Your task to perform on an android device: open app "Life360: Find Family & Friends" (install if not already installed) and enter user name: "gusts@gmail.com" and password: "assurers" Image 0: 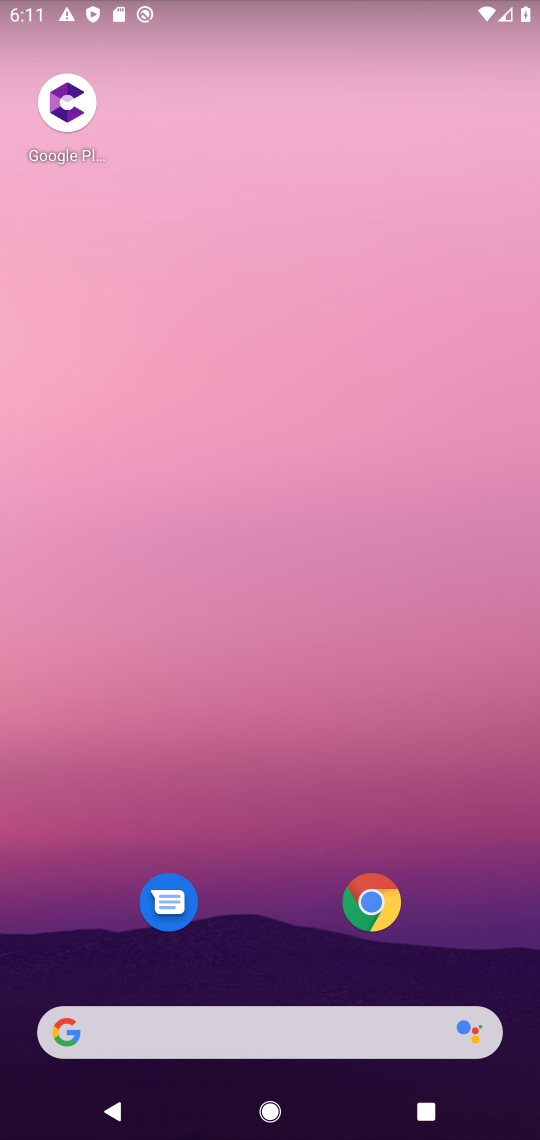
Step 0: drag from (288, 791) to (366, 2)
Your task to perform on an android device: open app "Life360: Find Family & Friends" (install if not already installed) and enter user name: "gusts@gmail.com" and password: "assurers" Image 1: 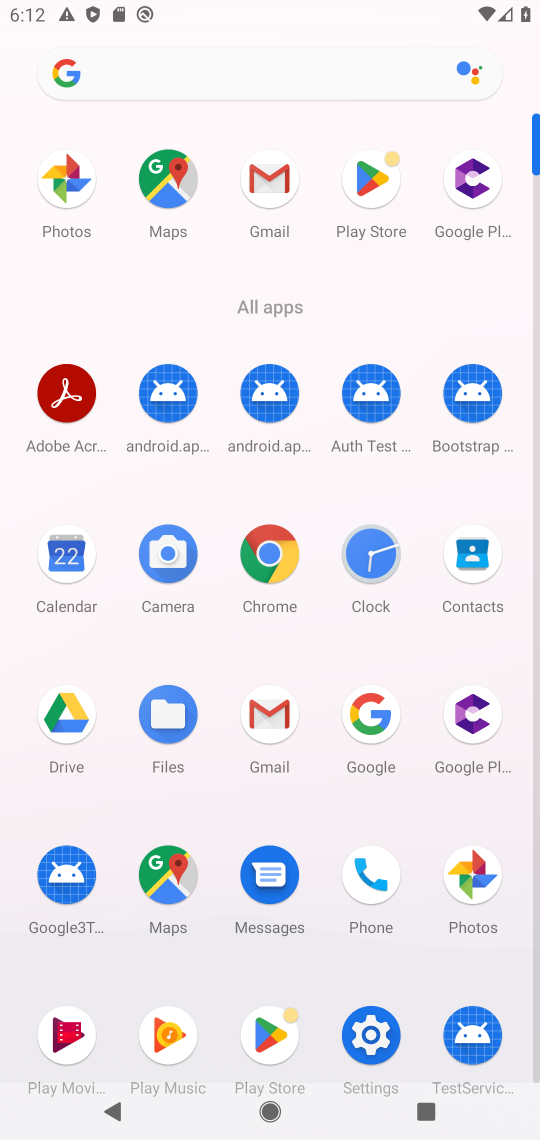
Step 1: click (377, 162)
Your task to perform on an android device: open app "Life360: Find Family & Friends" (install if not already installed) and enter user name: "gusts@gmail.com" and password: "assurers" Image 2: 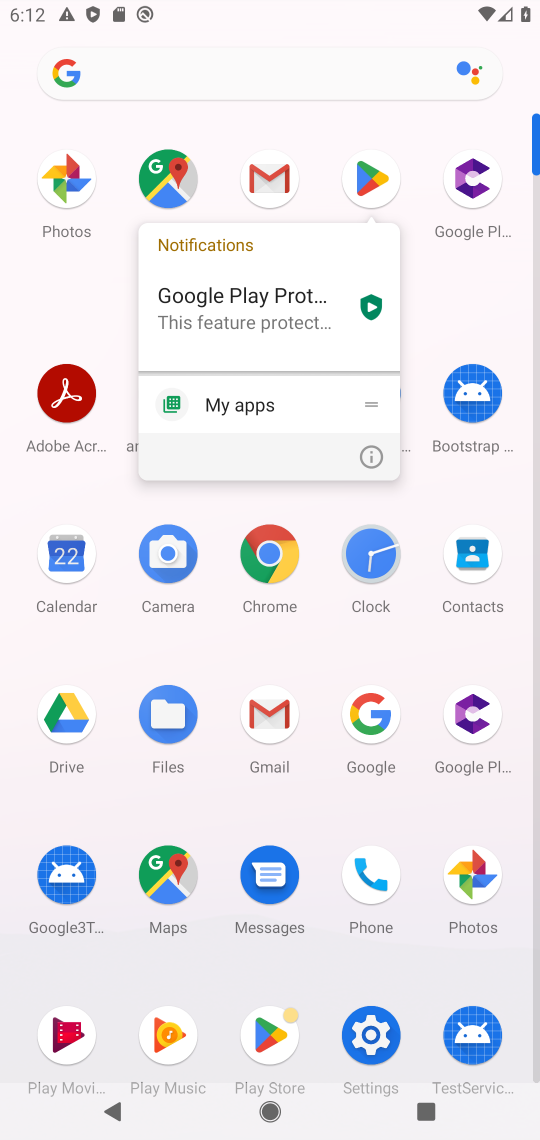
Step 2: click (362, 163)
Your task to perform on an android device: open app "Life360: Find Family & Friends" (install if not already installed) and enter user name: "gusts@gmail.com" and password: "assurers" Image 3: 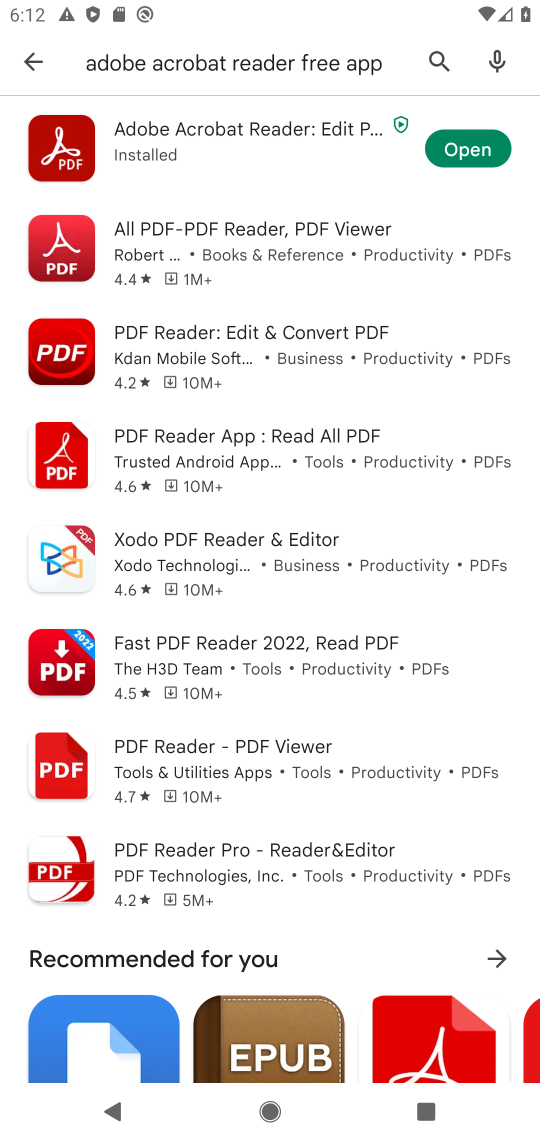
Step 3: click (26, 56)
Your task to perform on an android device: open app "Life360: Find Family & Friends" (install if not already installed) and enter user name: "gusts@gmail.com" and password: "assurers" Image 4: 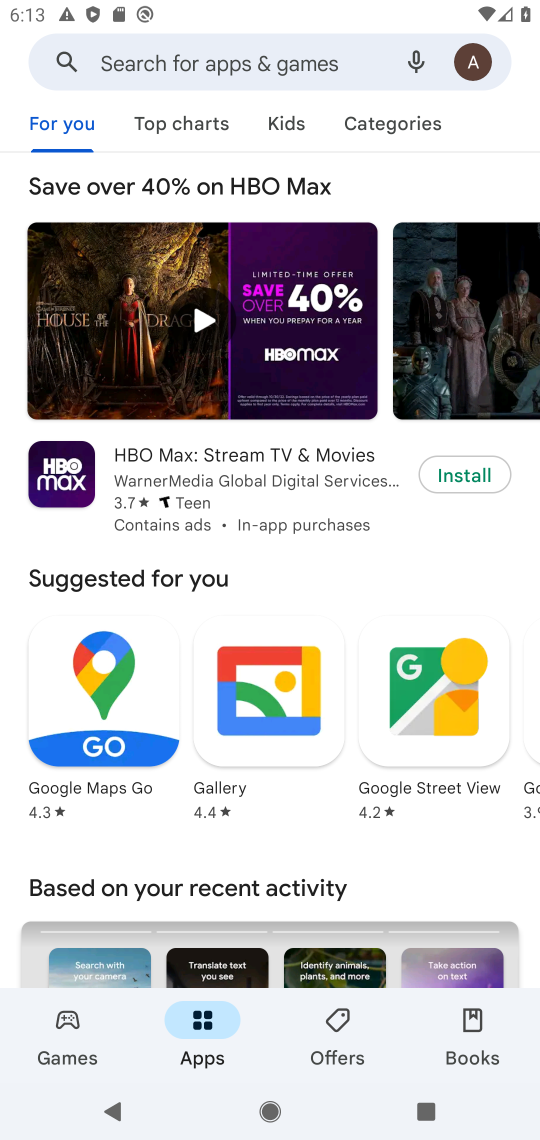
Step 4: click (229, 54)
Your task to perform on an android device: open app "Life360: Find Family & Friends" (install if not already installed) and enter user name: "gusts@gmail.com" and password: "assurers" Image 5: 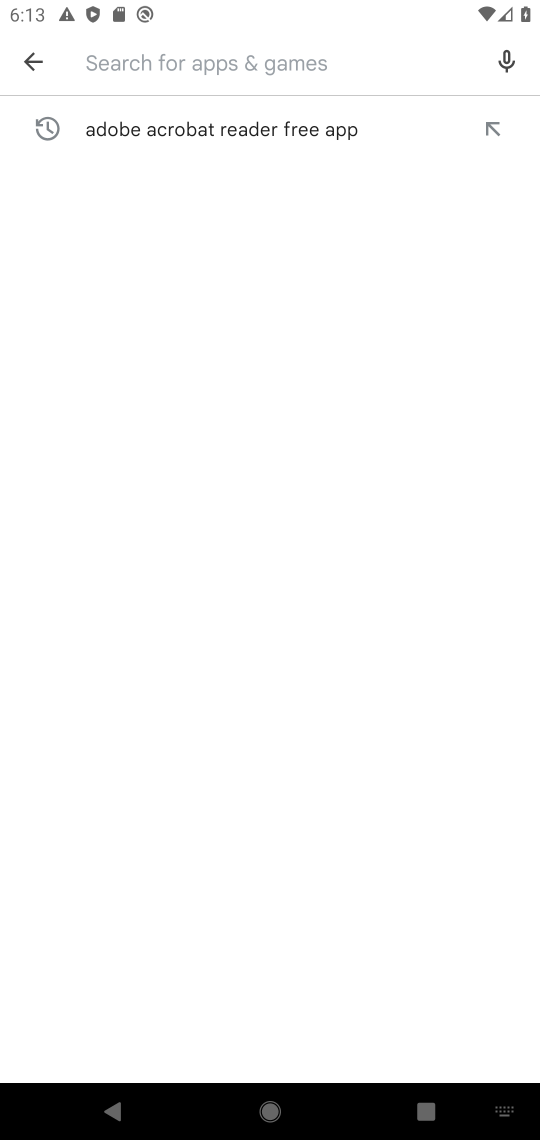
Step 5: type "Life360: Find Family & Friends"
Your task to perform on an android device: open app "Life360: Find Family & Friends" (install if not already installed) and enter user name: "gusts@gmail.com" and password: "assurers" Image 6: 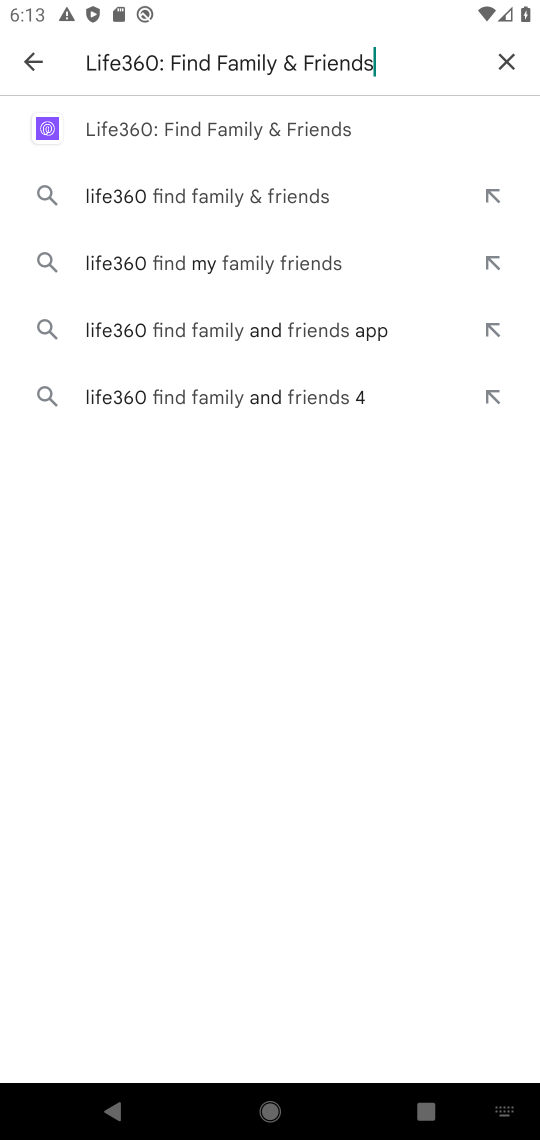
Step 6: click (191, 124)
Your task to perform on an android device: open app "Life360: Find Family & Friends" (install if not already installed) and enter user name: "gusts@gmail.com" and password: "assurers" Image 7: 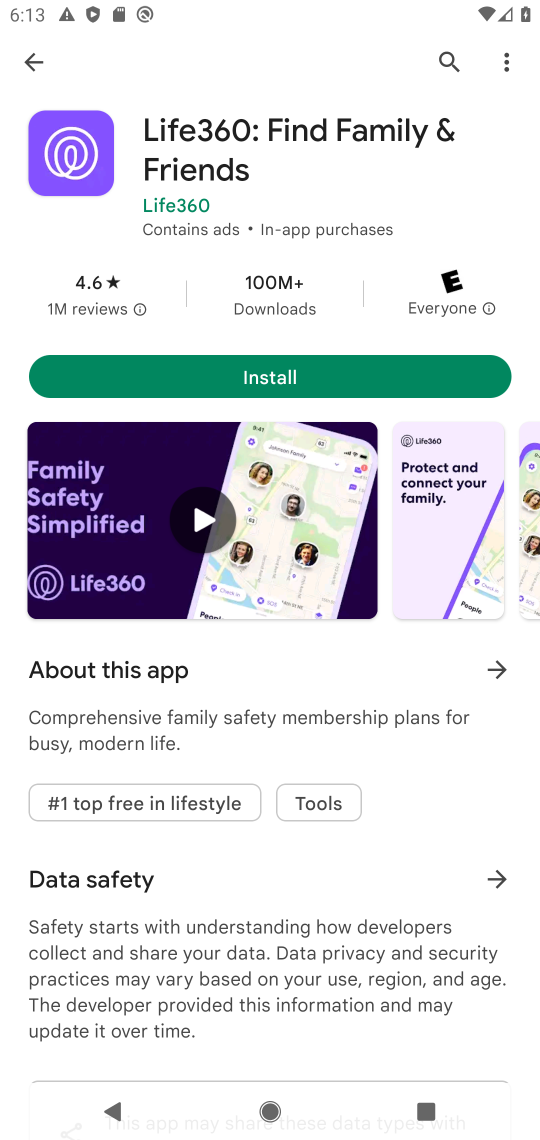
Step 7: click (271, 373)
Your task to perform on an android device: open app "Life360: Find Family & Friends" (install if not already installed) and enter user name: "gusts@gmail.com" and password: "assurers" Image 8: 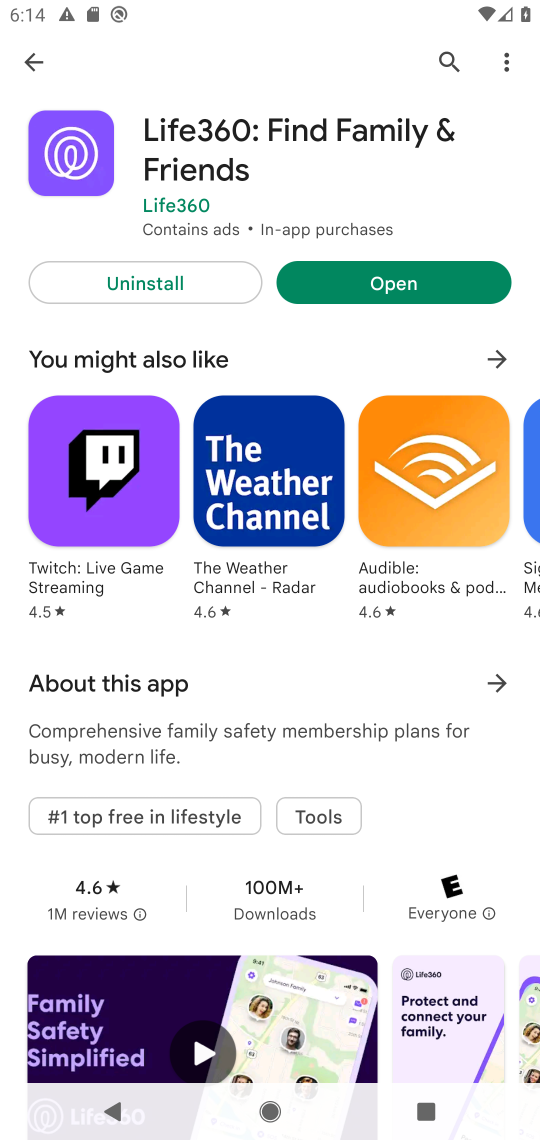
Step 8: click (366, 267)
Your task to perform on an android device: open app "Life360: Find Family & Friends" (install if not already installed) and enter user name: "gusts@gmail.com" and password: "assurers" Image 9: 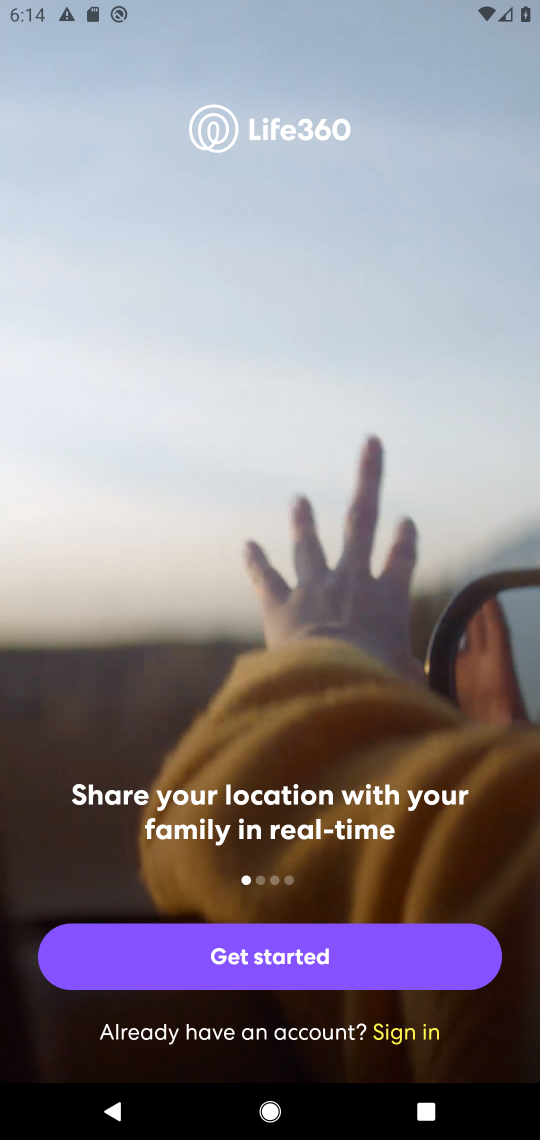
Step 9: task complete